Your task to perform on an android device: toggle notifications settings in the gmail app Image 0: 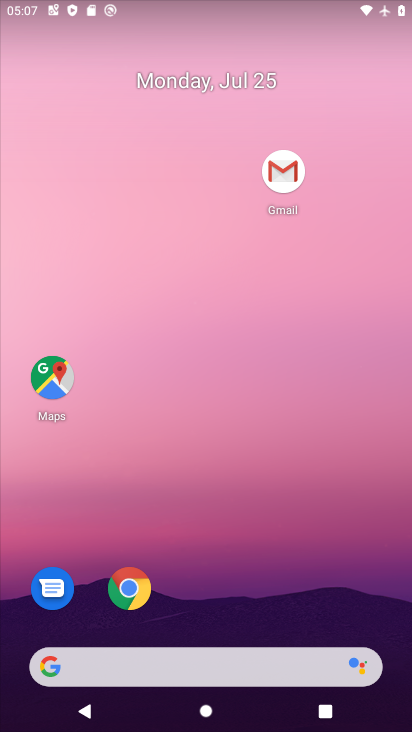
Step 0: drag from (310, 558) to (78, 4)
Your task to perform on an android device: toggle notifications settings in the gmail app Image 1: 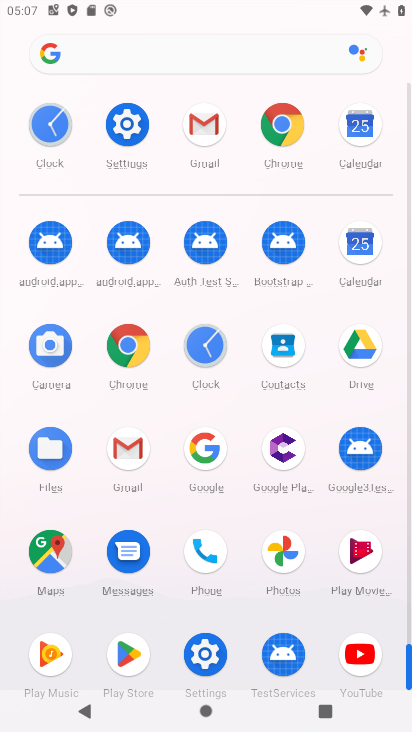
Step 1: click (197, 131)
Your task to perform on an android device: toggle notifications settings in the gmail app Image 2: 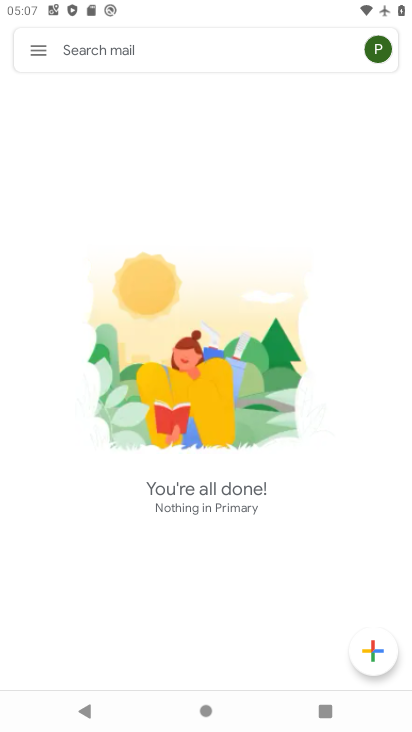
Step 2: click (45, 51)
Your task to perform on an android device: toggle notifications settings in the gmail app Image 3: 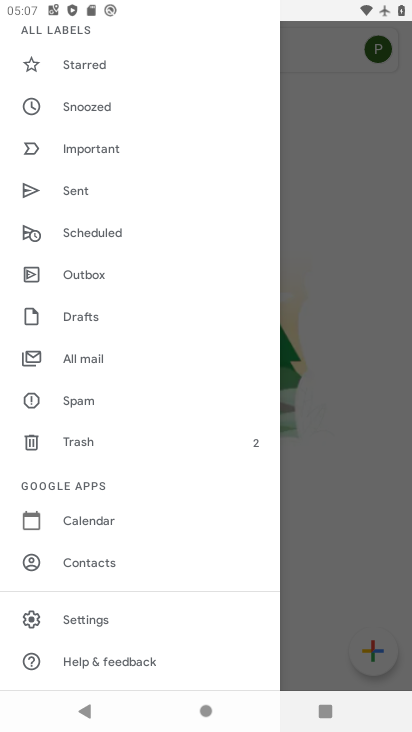
Step 3: click (93, 610)
Your task to perform on an android device: toggle notifications settings in the gmail app Image 4: 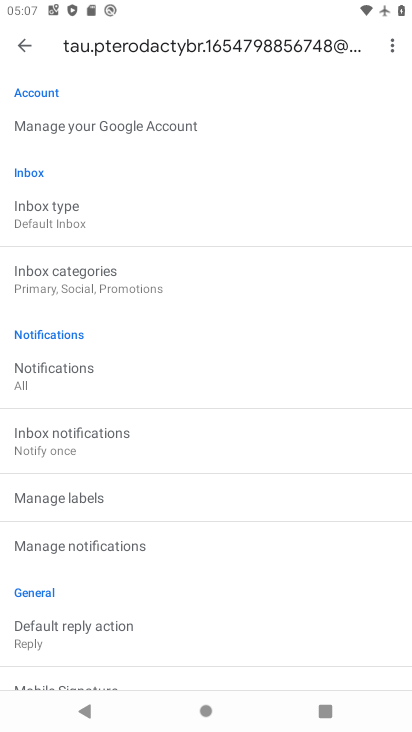
Step 4: click (141, 550)
Your task to perform on an android device: toggle notifications settings in the gmail app Image 5: 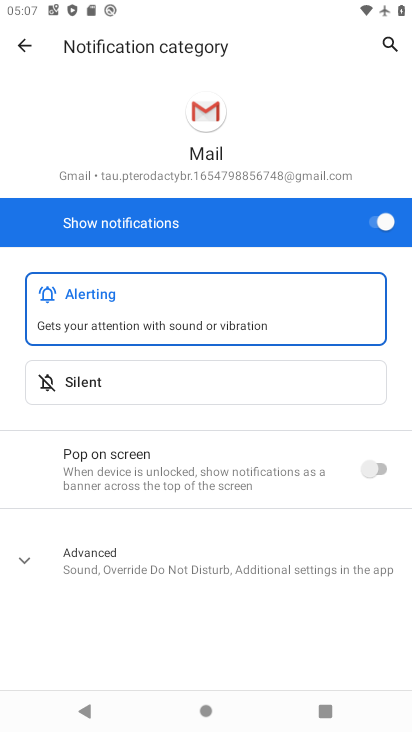
Step 5: click (373, 219)
Your task to perform on an android device: toggle notifications settings in the gmail app Image 6: 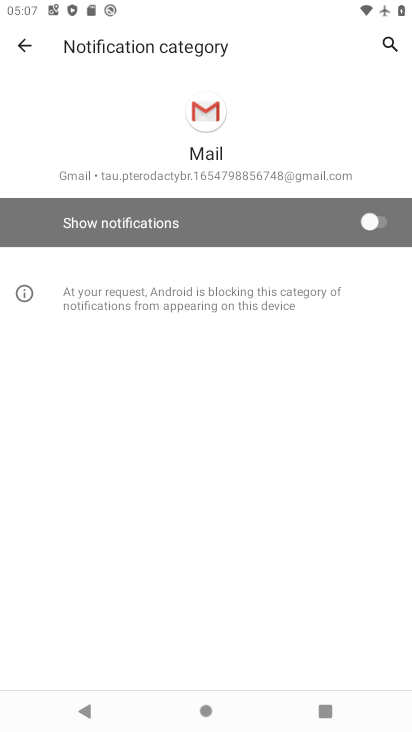
Step 6: task complete